Your task to perform on an android device: add a contact in the contacts app Image 0: 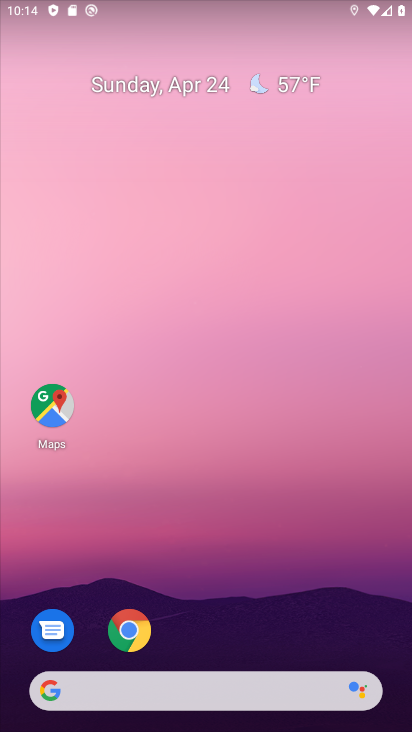
Step 0: drag from (174, 518) to (256, 22)
Your task to perform on an android device: add a contact in the contacts app Image 1: 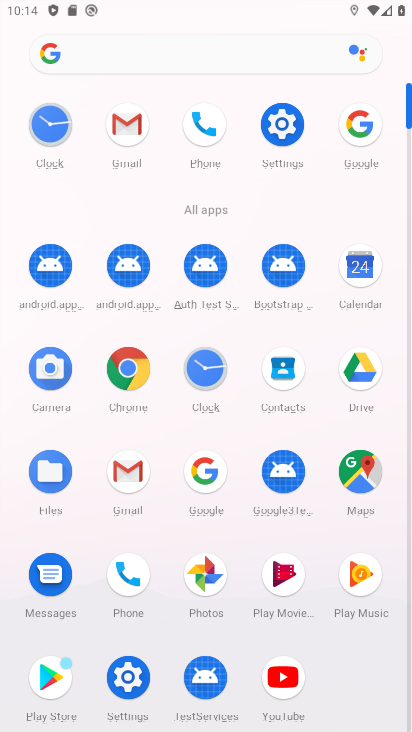
Step 1: click (285, 370)
Your task to perform on an android device: add a contact in the contacts app Image 2: 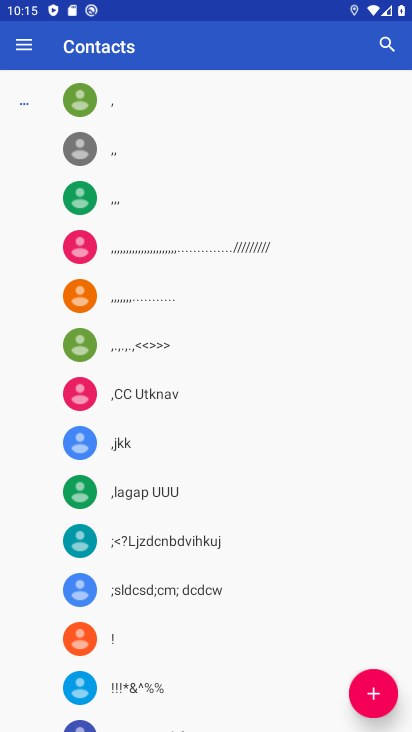
Step 2: click (369, 691)
Your task to perform on an android device: add a contact in the contacts app Image 3: 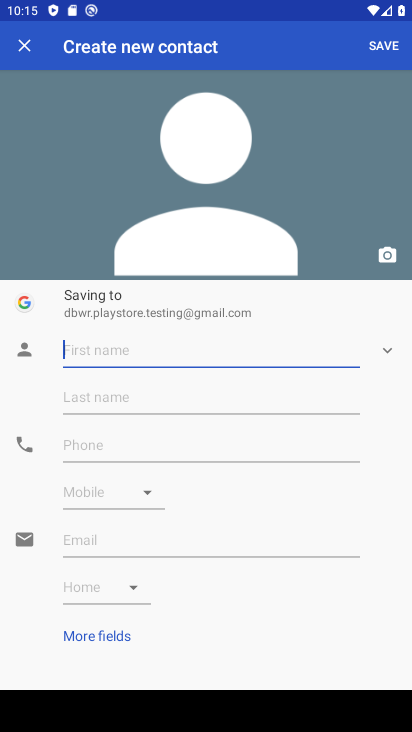
Step 3: click (134, 346)
Your task to perform on an android device: add a contact in the contacts app Image 4: 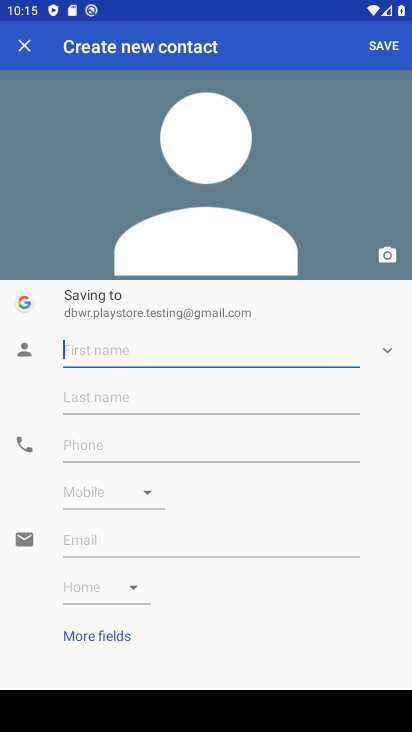
Step 4: type "swastika"
Your task to perform on an android device: add a contact in the contacts app Image 5: 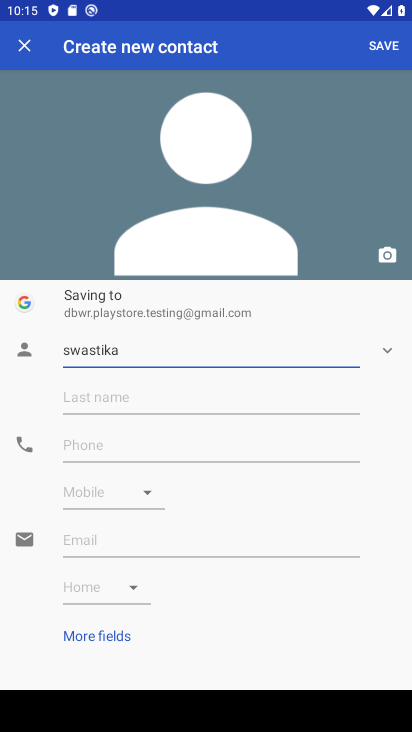
Step 5: click (224, 385)
Your task to perform on an android device: add a contact in the contacts app Image 6: 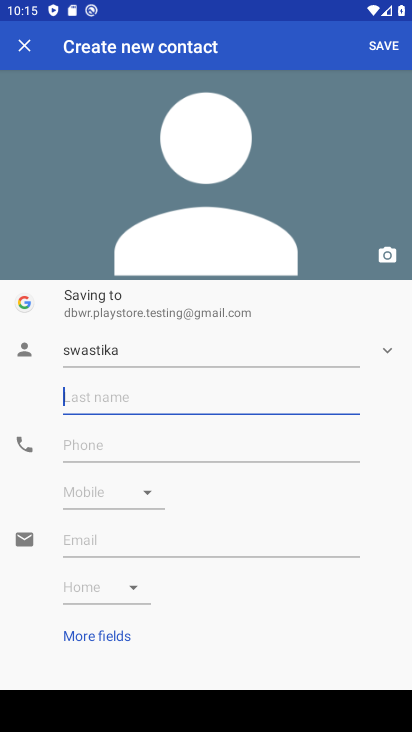
Step 6: type "dubey"
Your task to perform on an android device: add a contact in the contacts app Image 7: 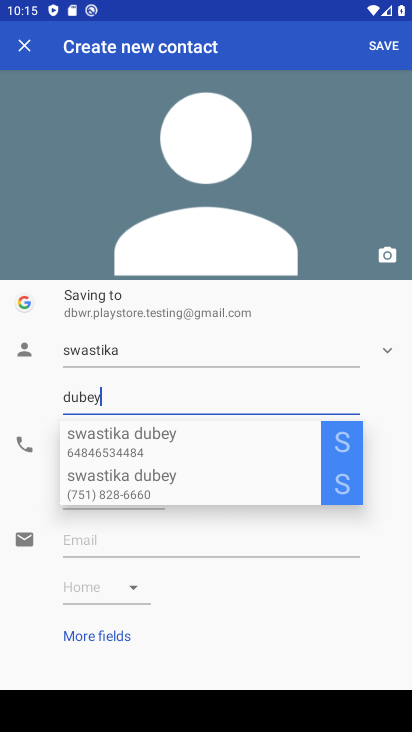
Step 7: click (114, 477)
Your task to perform on an android device: add a contact in the contacts app Image 8: 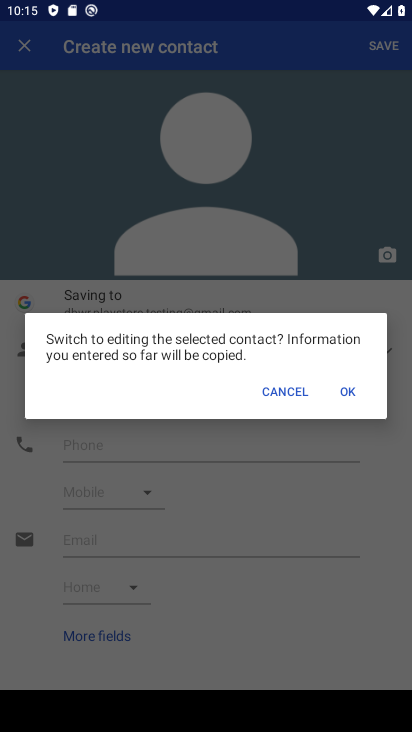
Step 8: click (345, 390)
Your task to perform on an android device: add a contact in the contacts app Image 9: 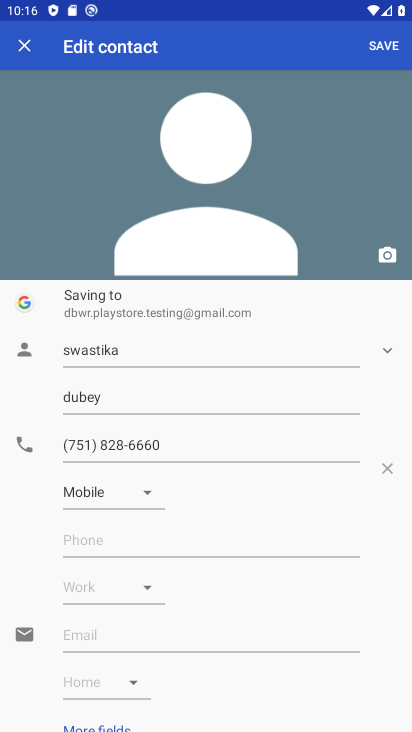
Step 9: task complete